Your task to perform on an android device: choose inbox layout in the gmail app Image 0: 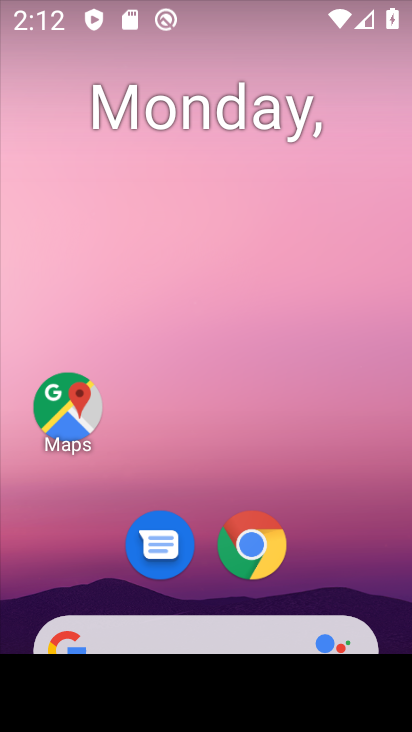
Step 0: drag from (218, 524) to (317, 221)
Your task to perform on an android device: choose inbox layout in the gmail app Image 1: 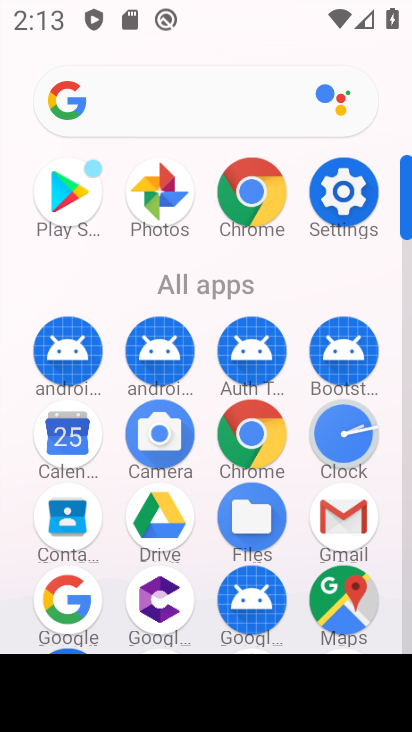
Step 1: click (348, 513)
Your task to perform on an android device: choose inbox layout in the gmail app Image 2: 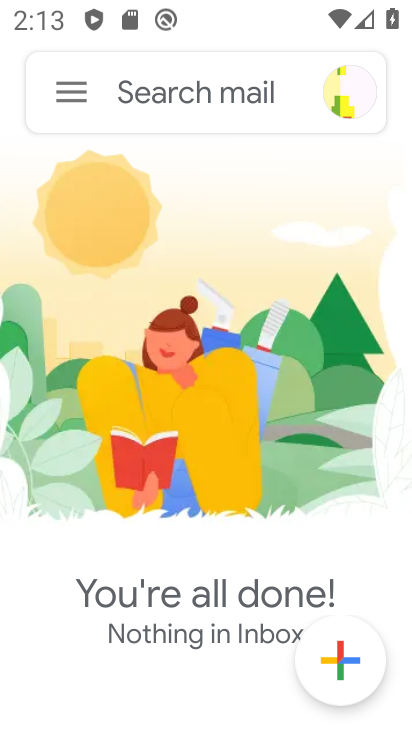
Step 2: click (60, 81)
Your task to perform on an android device: choose inbox layout in the gmail app Image 3: 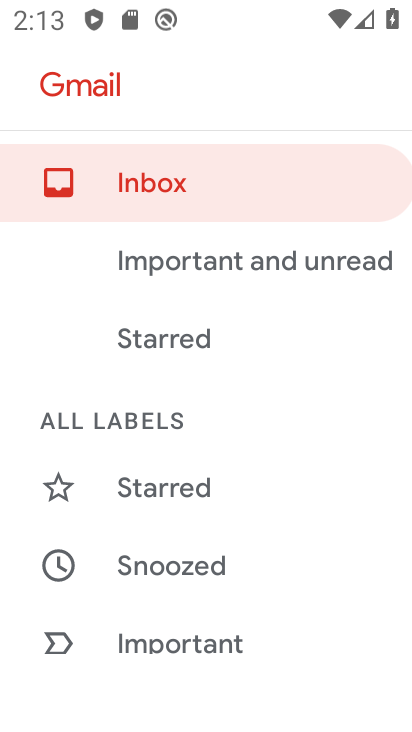
Step 3: drag from (179, 585) to (265, 263)
Your task to perform on an android device: choose inbox layout in the gmail app Image 4: 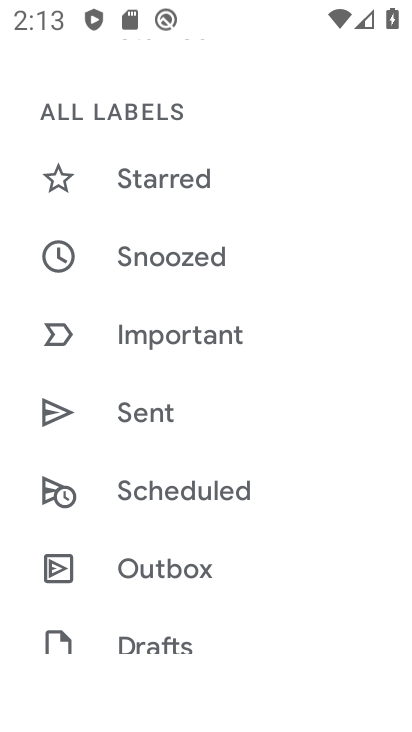
Step 4: drag from (228, 604) to (305, 87)
Your task to perform on an android device: choose inbox layout in the gmail app Image 5: 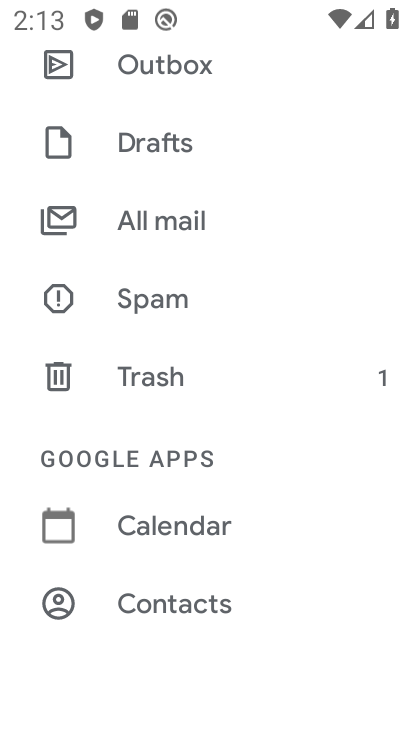
Step 5: drag from (164, 578) to (298, 96)
Your task to perform on an android device: choose inbox layout in the gmail app Image 6: 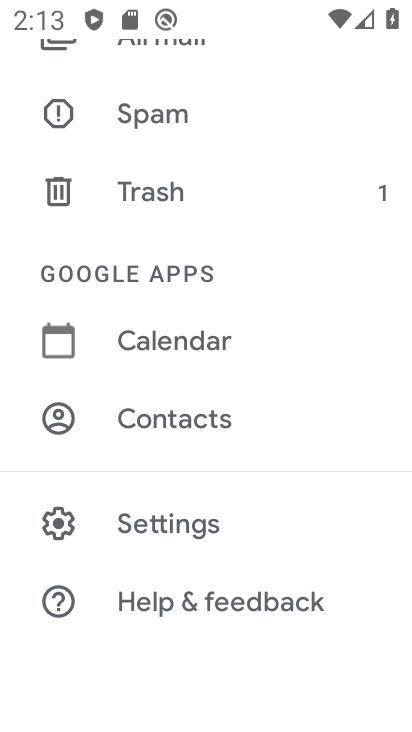
Step 6: click (199, 511)
Your task to perform on an android device: choose inbox layout in the gmail app Image 7: 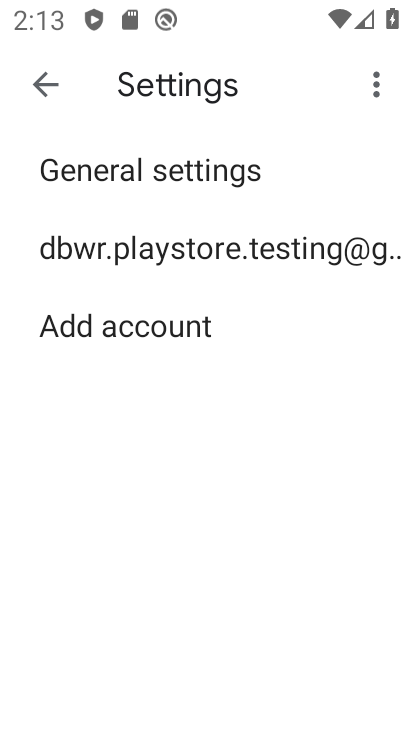
Step 7: click (139, 265)
Your task to perform on an android device: choose inbox layout in the gmail app Image 8: 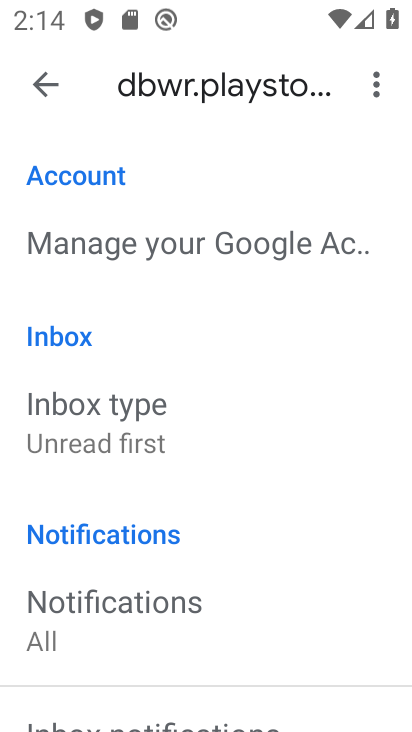
Step 8: click (166, 424)
Your task to perform on an android device: choose inbox layout in the gmail app Image 9: 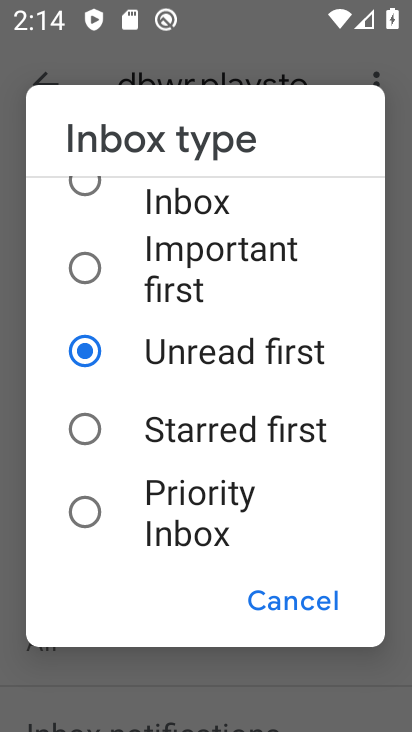
Step 9: click (89, 510)
Your task to perform on an android device: choose inbox layout in the gmail app Image 10: 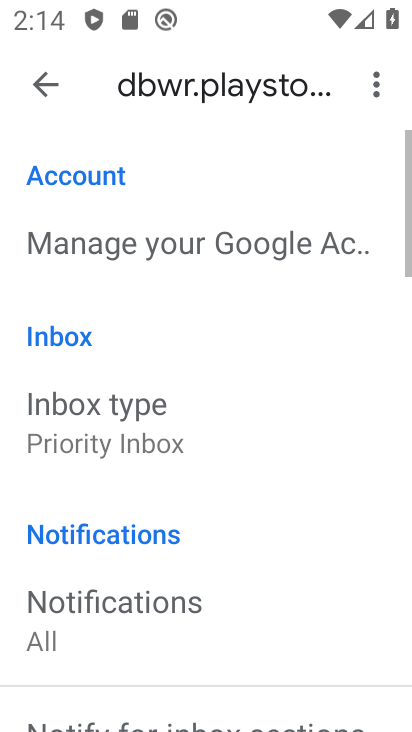
Step 10: task complete